Your task to perform on an android device: Go to Google maps Image 0: 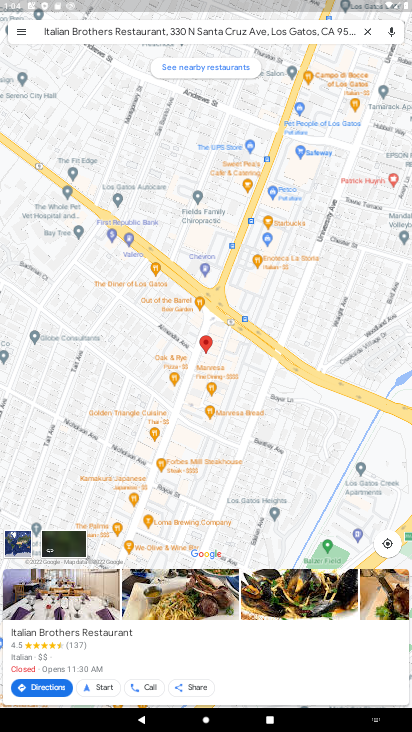
Step 0: click (163, 30)
Your task to perform on an android device: Go to Google maps Image 1: 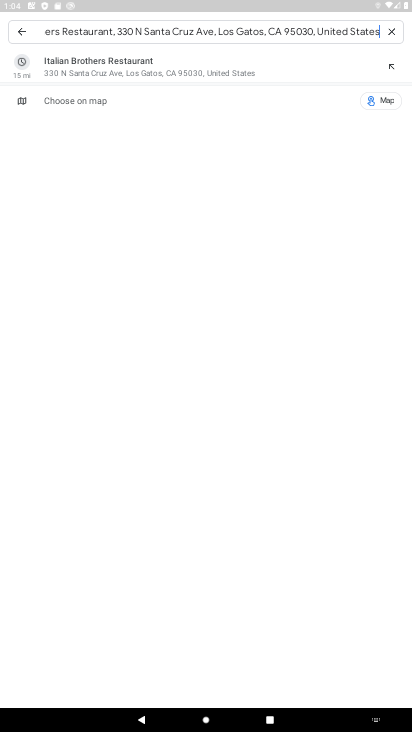
Step 1: click (193, 27)
Your task to perform on an android device: Go to Google maps Image 2: 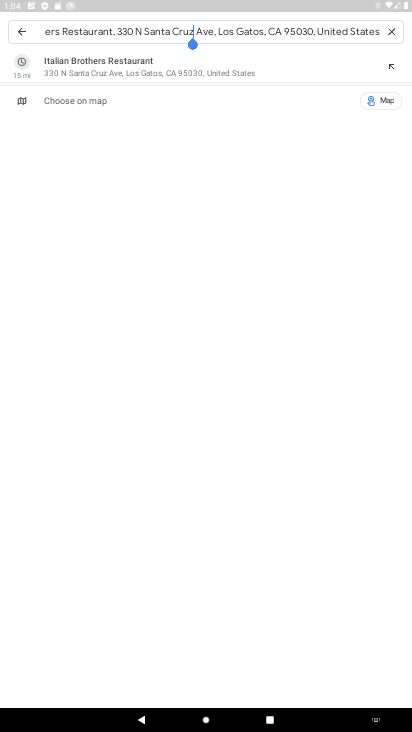
Step 2: task complete